Your task to perform on an android device: open app "ZOOM Cloud Meetings" (install if not already installed), go to login, and select forgot password Image 0: 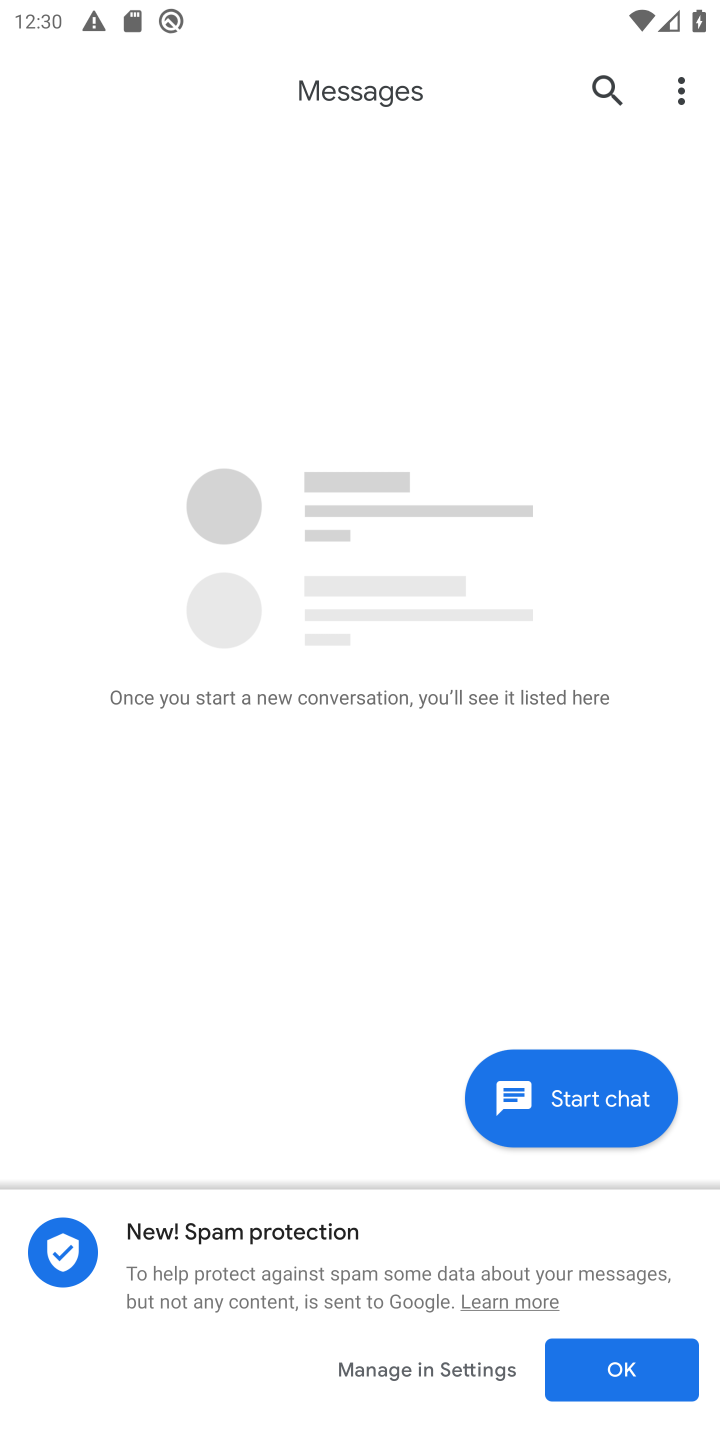
Step 0: press back button
Your task to perform on an android device: open app "ZOOM Cloud Meetings" (install if not already installed), go to login, and select forgot password Image 1: 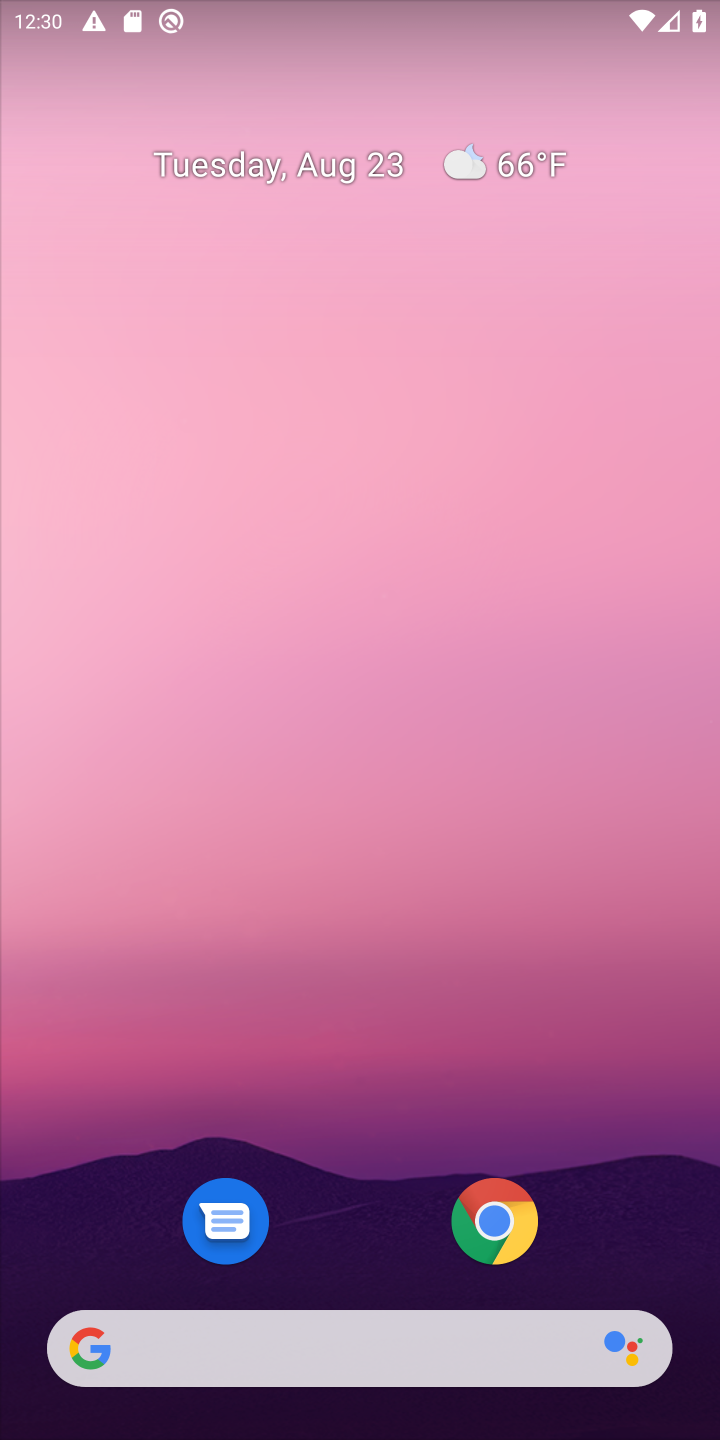
Step 1: drag from (358, 1168) to (476, 86)
Your task to perform on an android device: open app "ZOOM Cloud Meetings" (install if not already installed), go to login, and select forgot password Image 2: 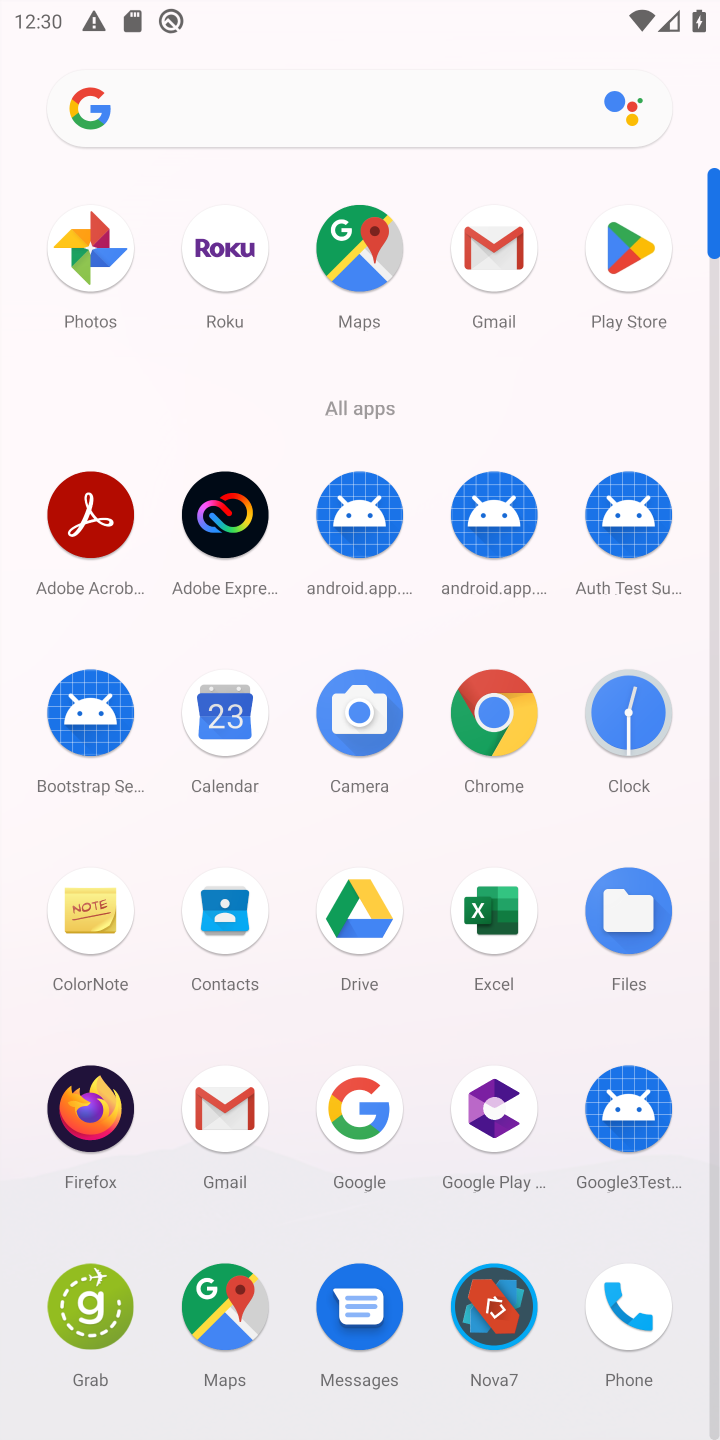
Step 2: click (633, 231)
Your task to perform on an android device: open app "ZOOM Cloud Meetings" (install if not already installed), go to login, and select forgot password Image 3: 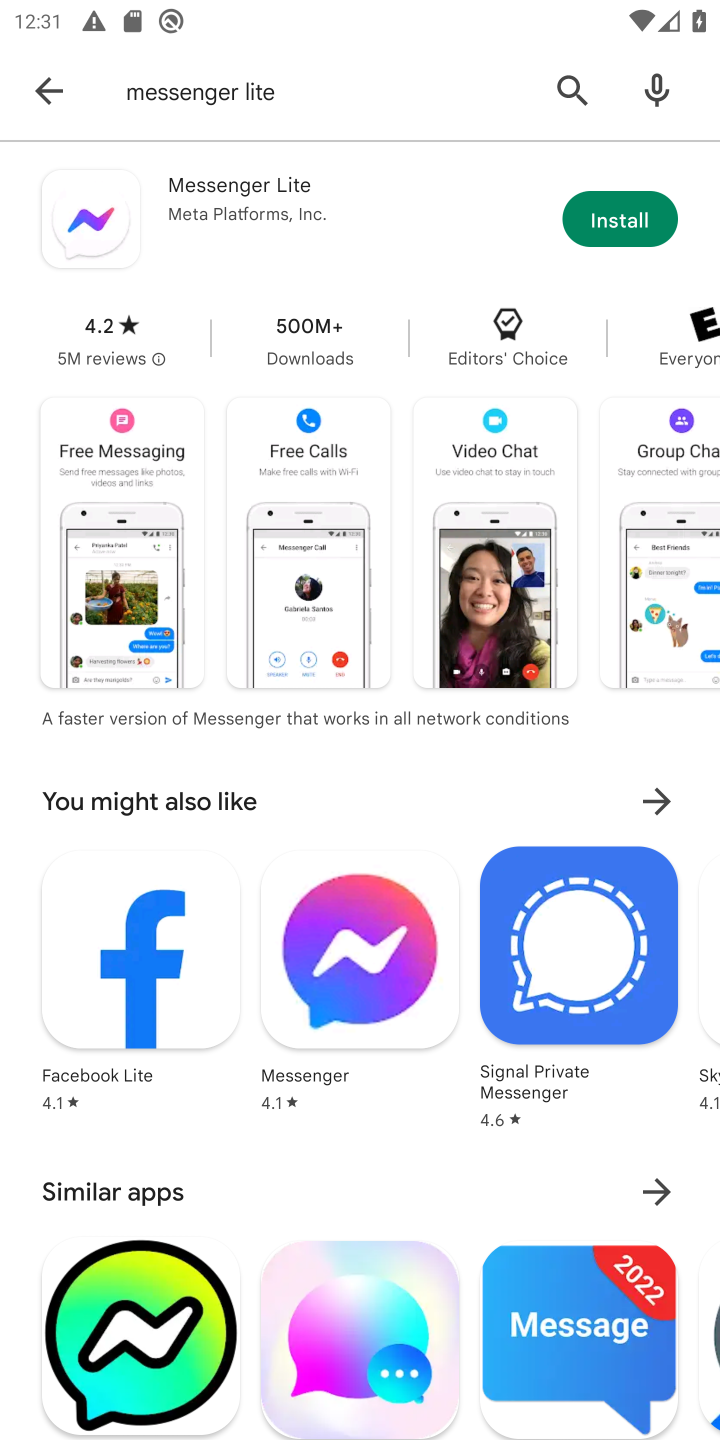
Step 3: click (565, 99)
Your task to perform on an android device: open app "ZOOM Cloud Meetings" (install if not already installed), go to login, and select forgot password Image 4: 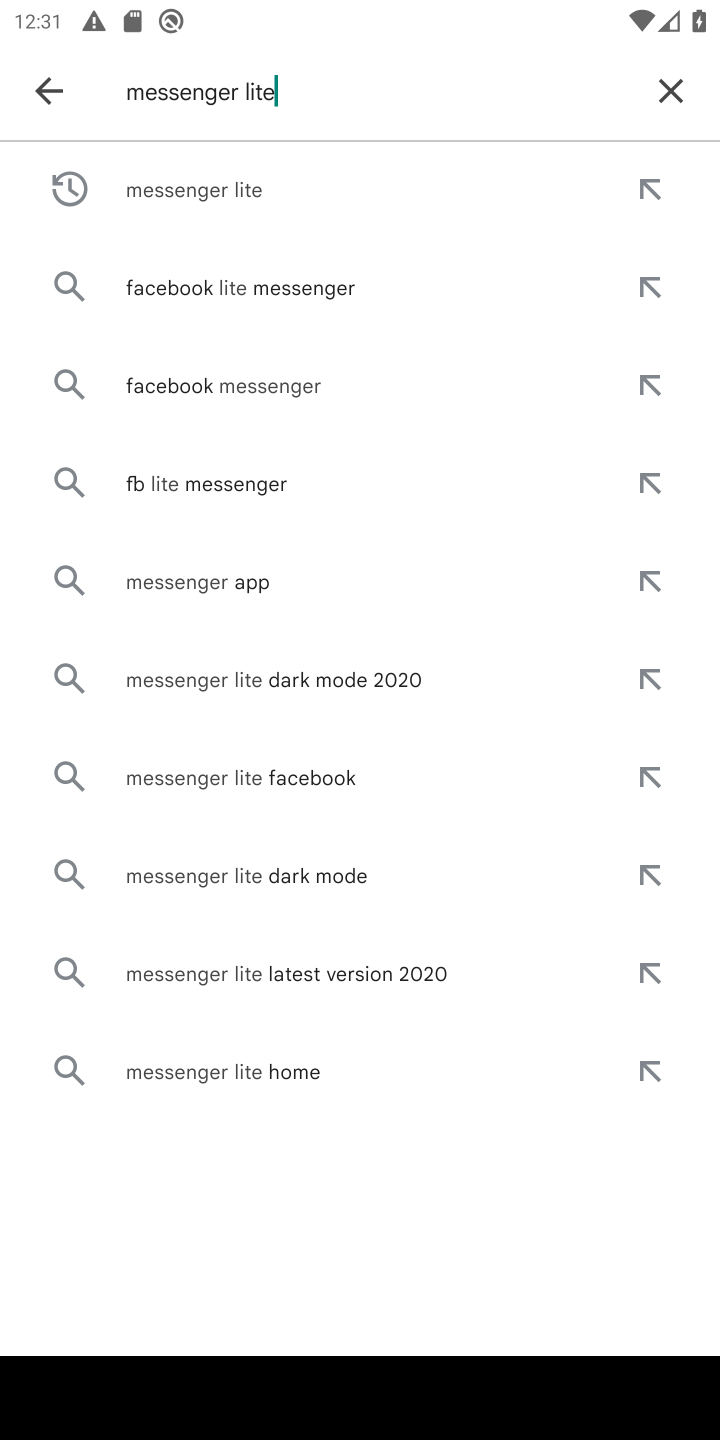
Step 4: click (692, 79)
Your task to perform on an android device: open app "ZOOM Cloud Meetings" (install if not already installed), go to login, and select forgot password Image 5: 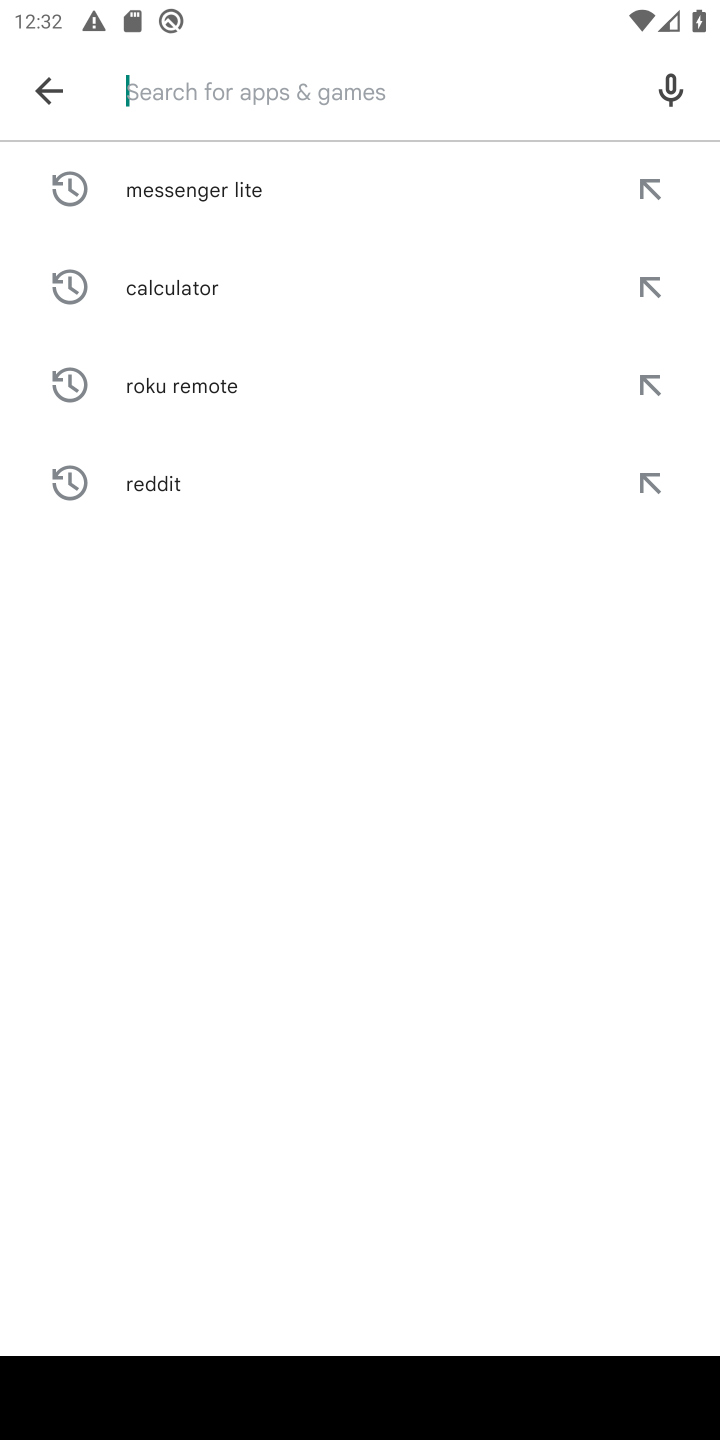
Step 5: click (234, 96)
Your task to perform on an android device: open app "ZOOM Cloud Meetings" (install if not already installed), go to login, and select forgot password Image 6: 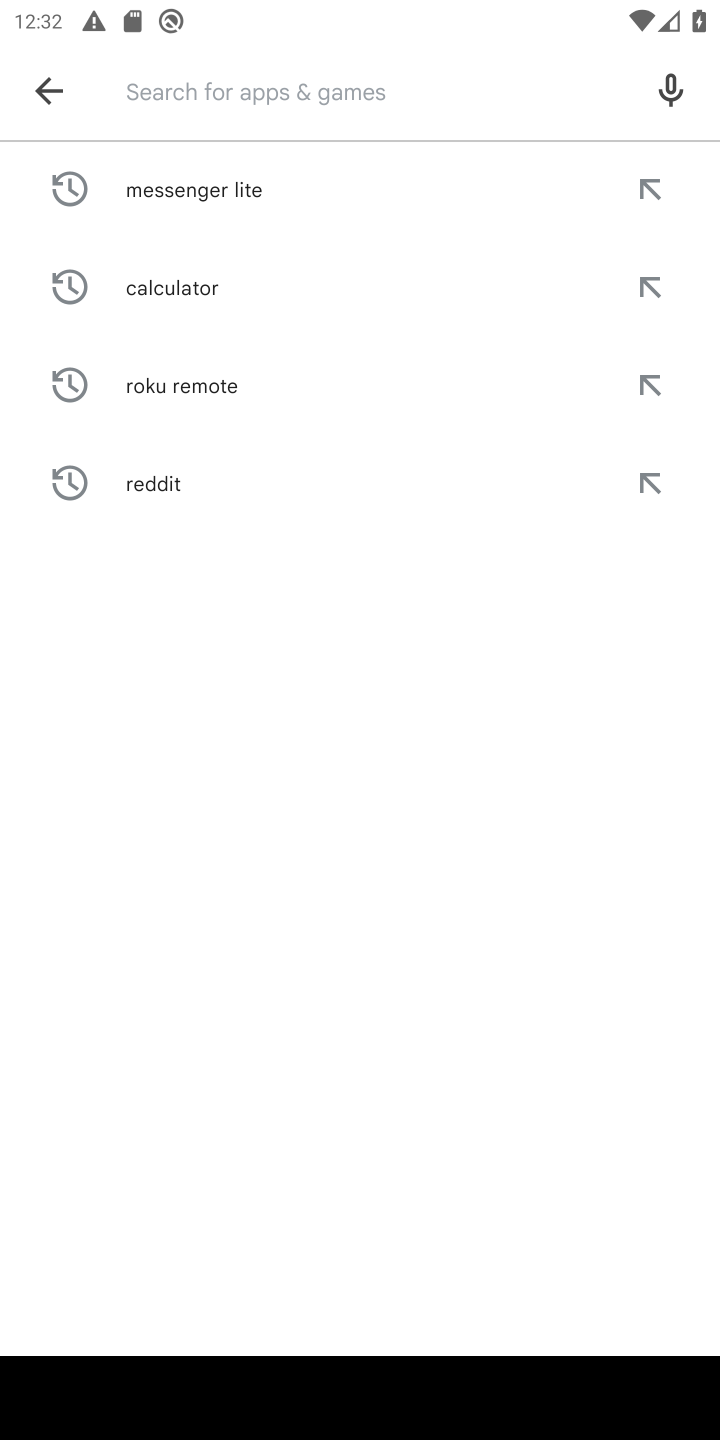
Step 6: click (560, 886)
Your task to perform on an android device: open app "ZOOM Cloud Meetings" (install if not already installed), go to login, and select forgot password Image 7: 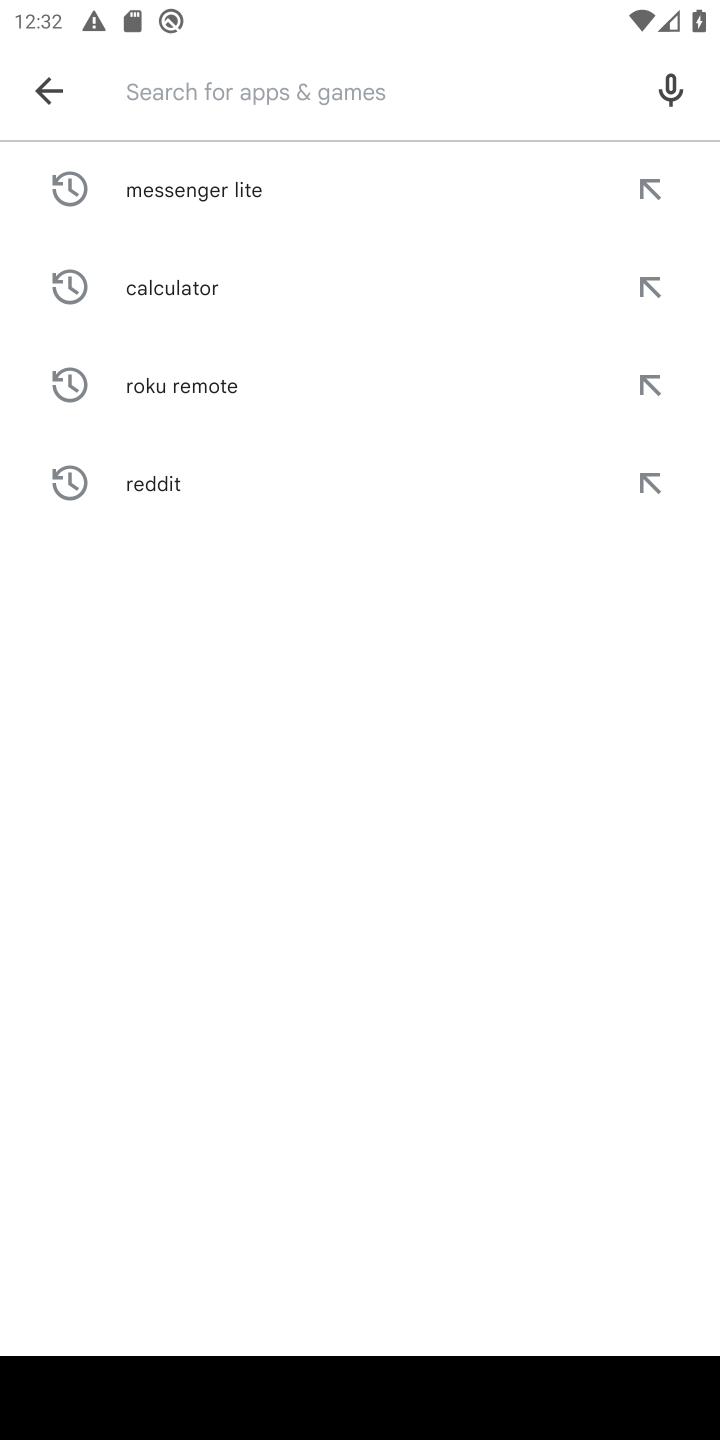
Step 7: type "ZOOM Cloud Meetings"
Your task to perform on an android device: open app "ZOOM Cloud Meetings" (install if not already installed), go to login, and select forgot password Image 8: 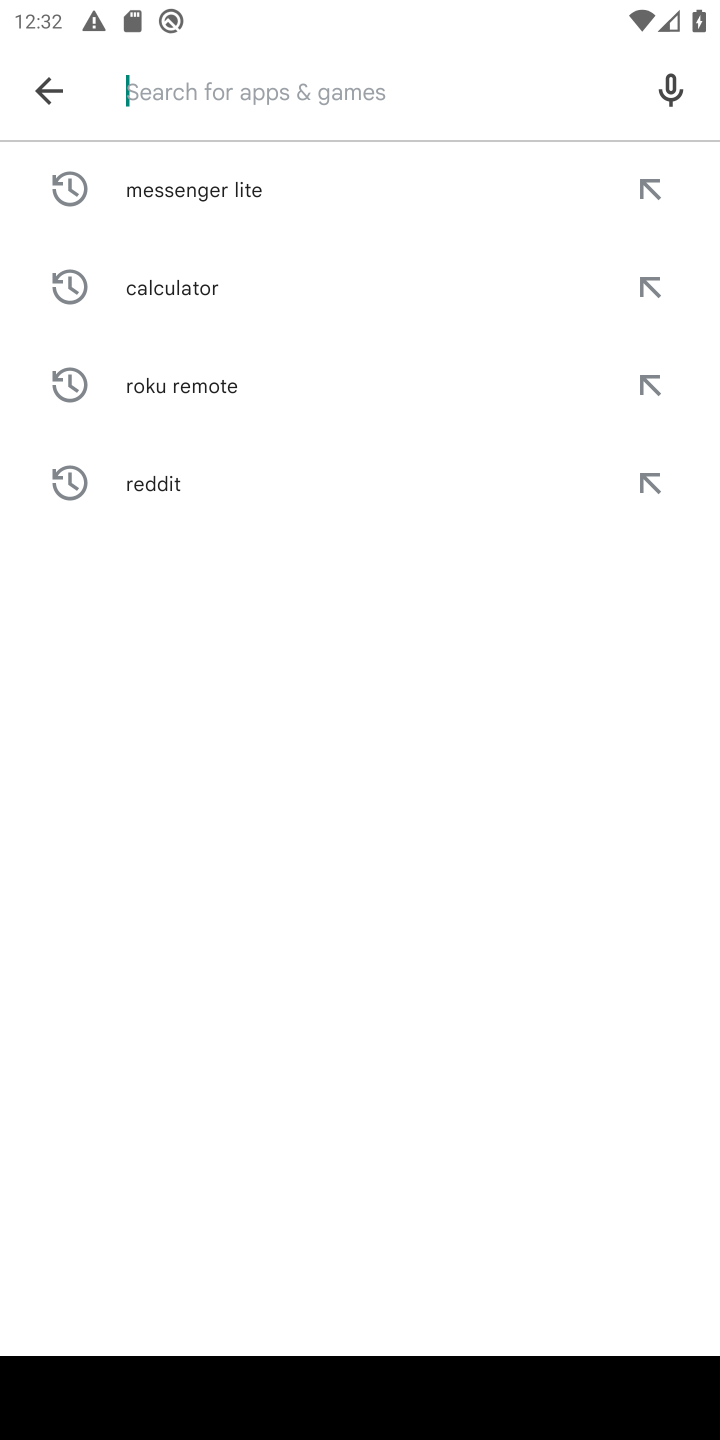
Step 8: click (559, 886)
Your task to perform on an android device: open app "ZOOM Cloud Meetings" (install if not already installed), go to login, and select forgot password Image 9: 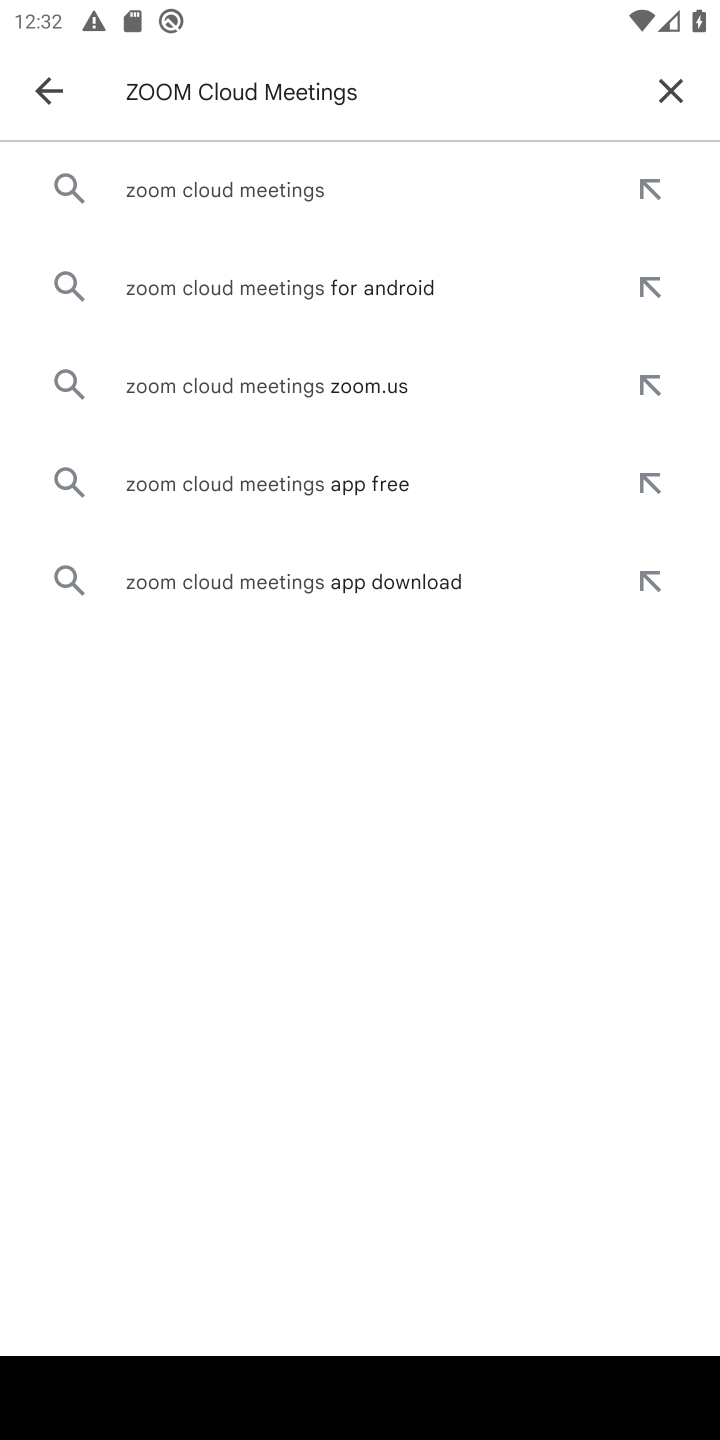
Step 9: click (274, 187)
Your task to perform on an android device: open app "ZOOM Cloud Meetings" (install if not already installed), go to login, and select forgot password Image 10: 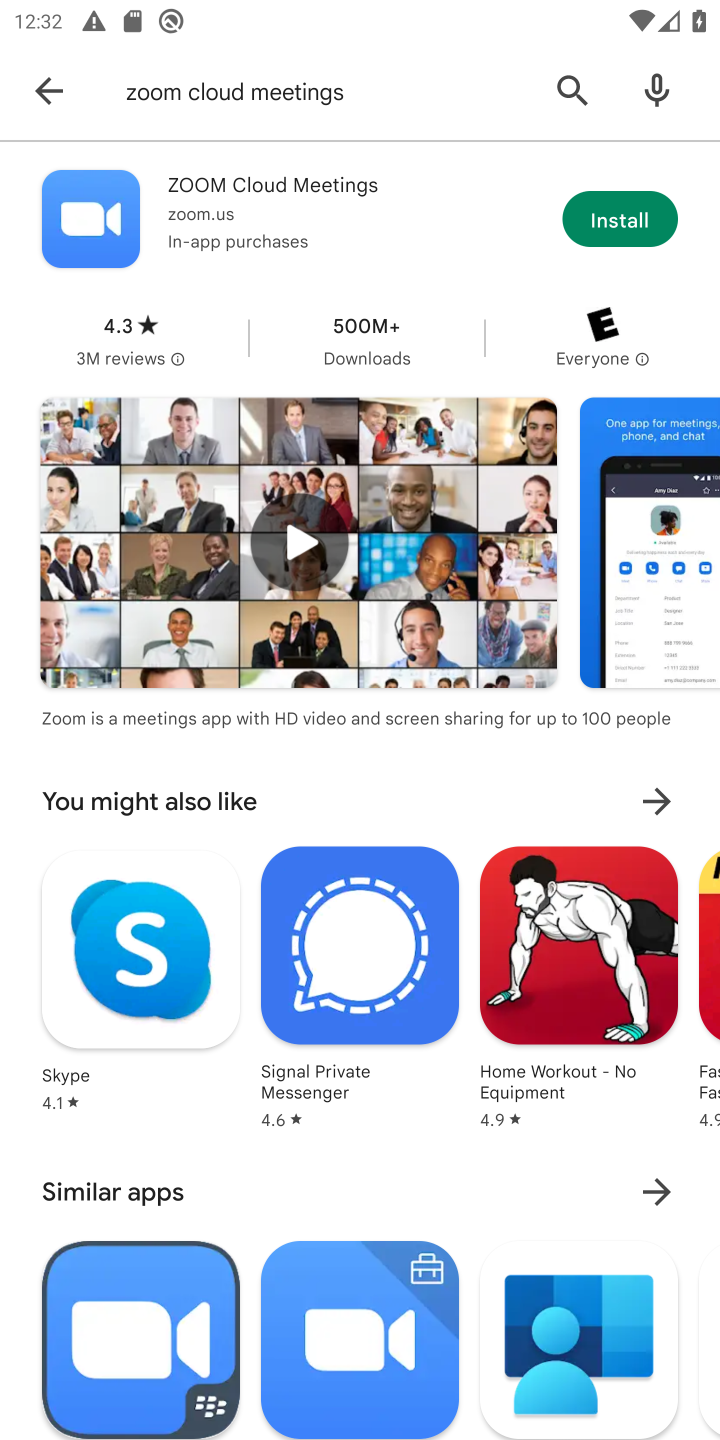
Step 10: click (639, 213)
Your task to perform on an android device: open app "ZOOM Cloud Meetings" (install if not already installed), go to login, and select forgot password Image 11: 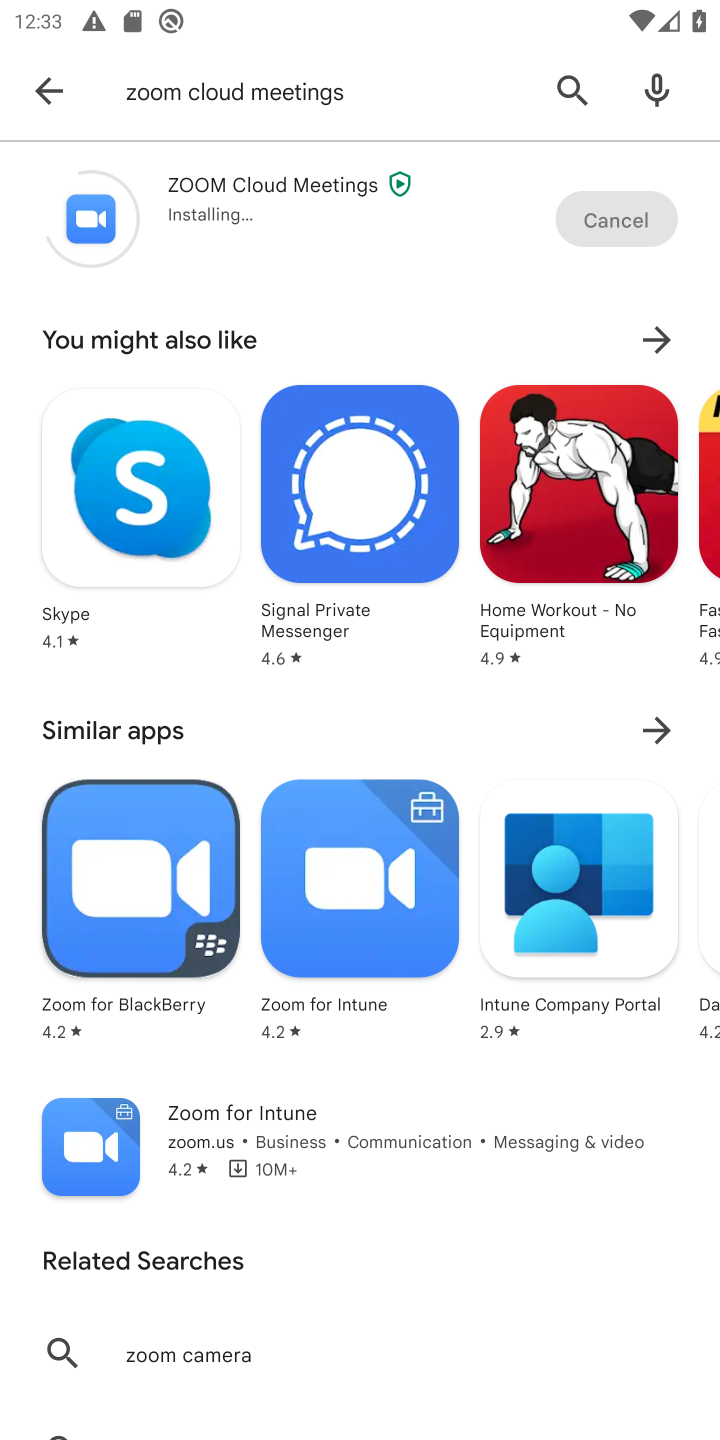
Step 11: press back button
Your task to perform on an android device: open app "ZOOM Cloud Meetings" (install if not already installed), go to login, and select forgot password Image 12: 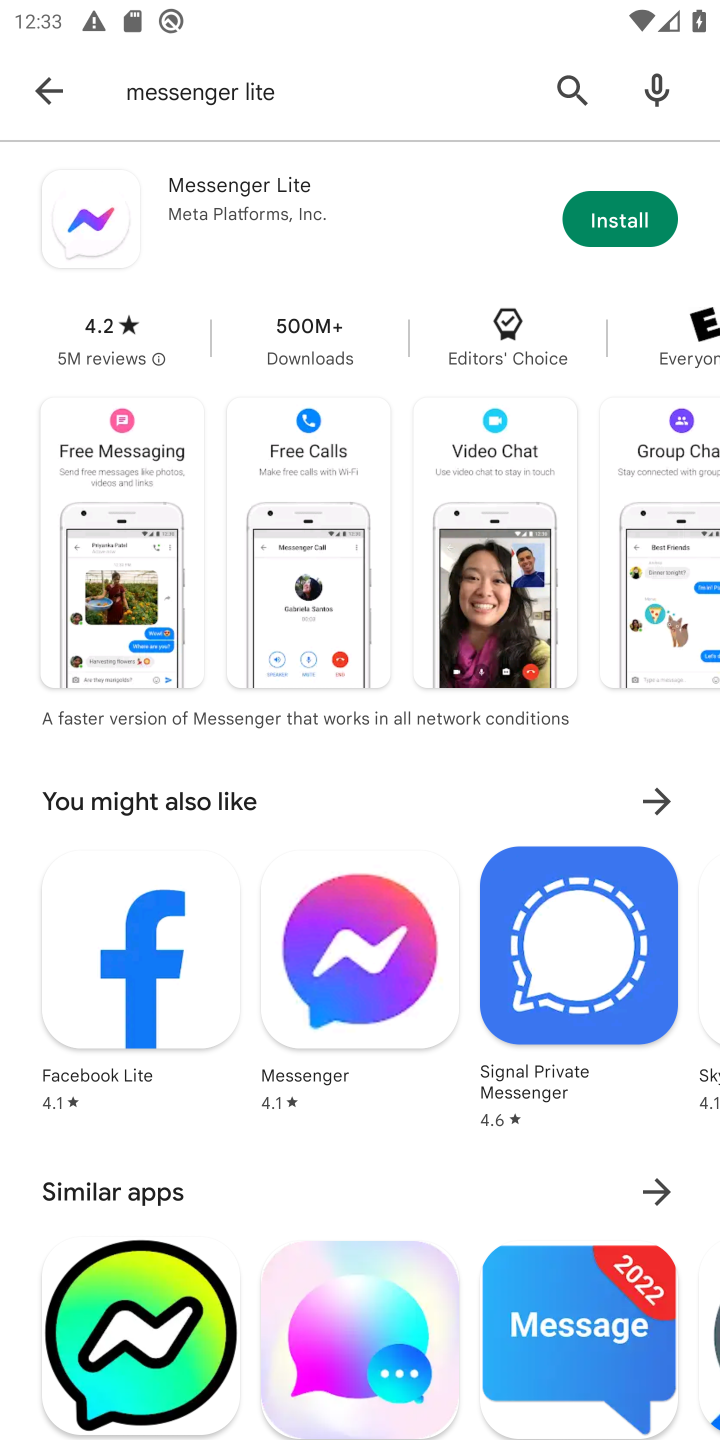
Step 12: click (555, 90)
Your task to perform on an android device: open app "ZOOM Cloud Meetings" (install if not already installed), go to login, and select forgot password Image 13: 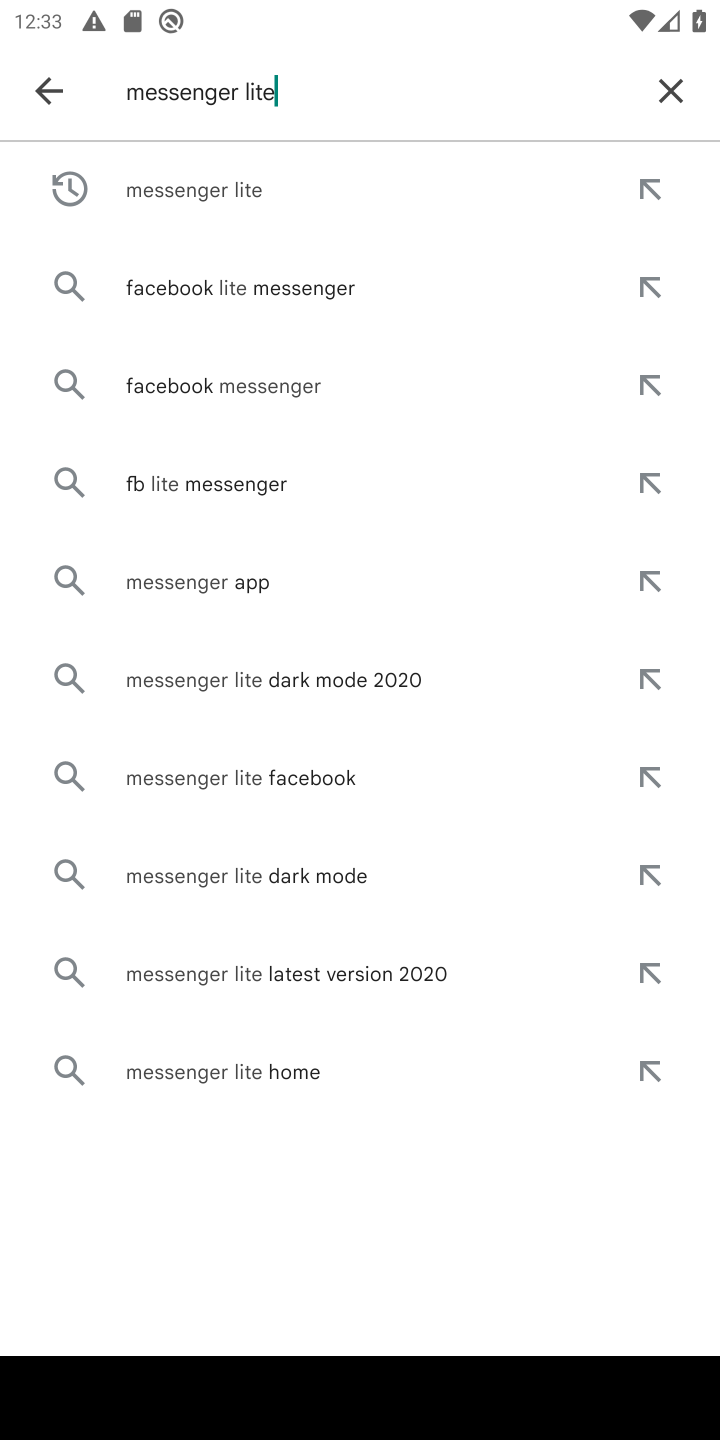
Step 13: click (677, 90)
Your task to perform on an android device: open app "ZOOM Cloud Meetings" (install if not already installed), go to login, and select forgot password Image 14: 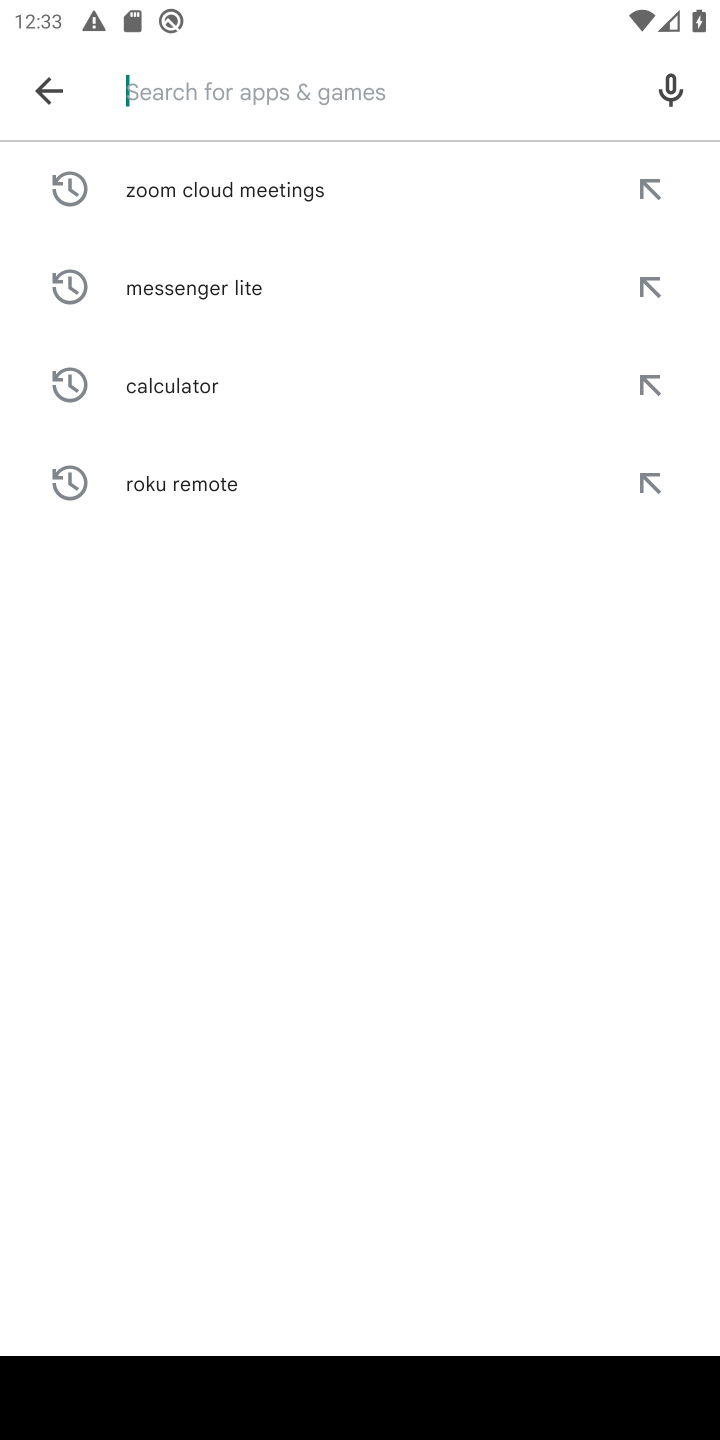
Step 14: click (297, 190)
Your task to perform on an android device: open app "ZOOM Cloud Meetings" (install if not already installed), go to login, and select forgot password Image 15: 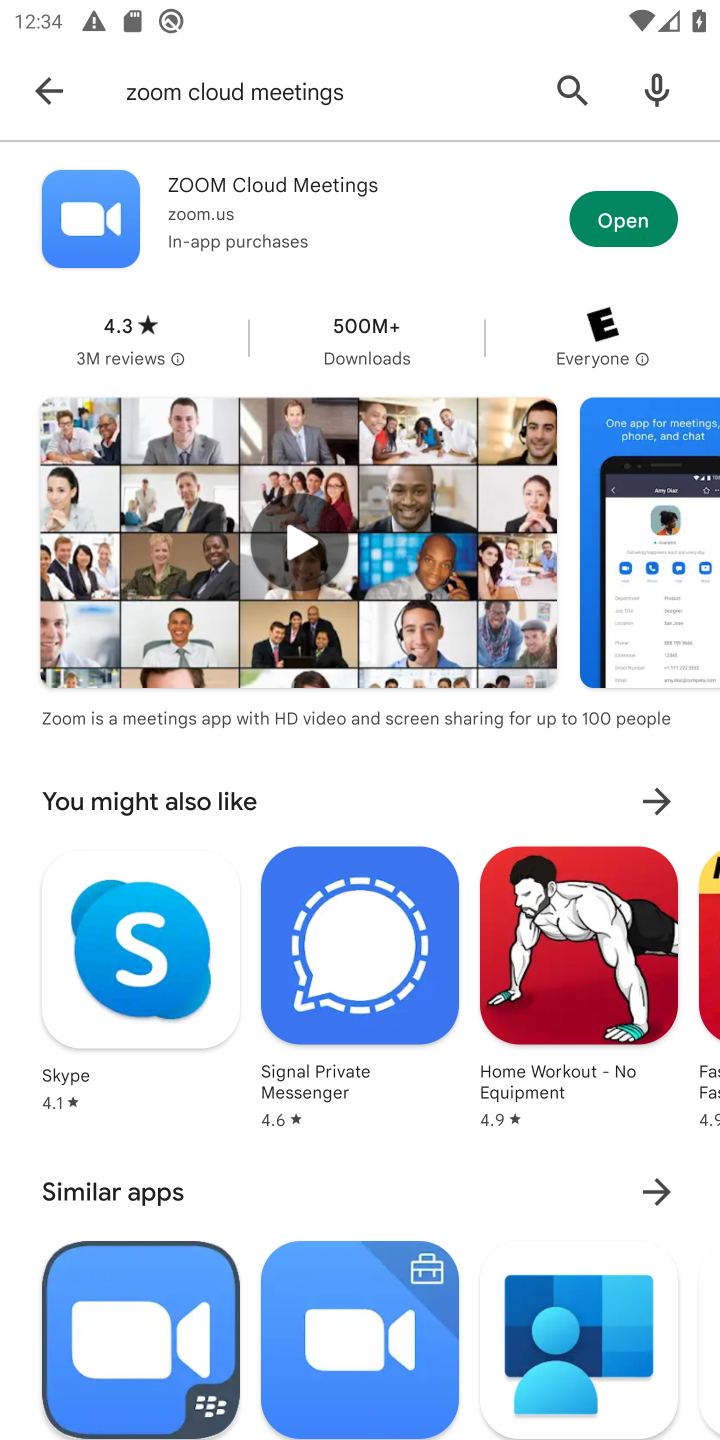
Step 15: click (648, 207)
Your task to perform on an android device: open app "ZOOM Cloud Meetings" (install if not already installed), go to login, and select forgot password Image 16: 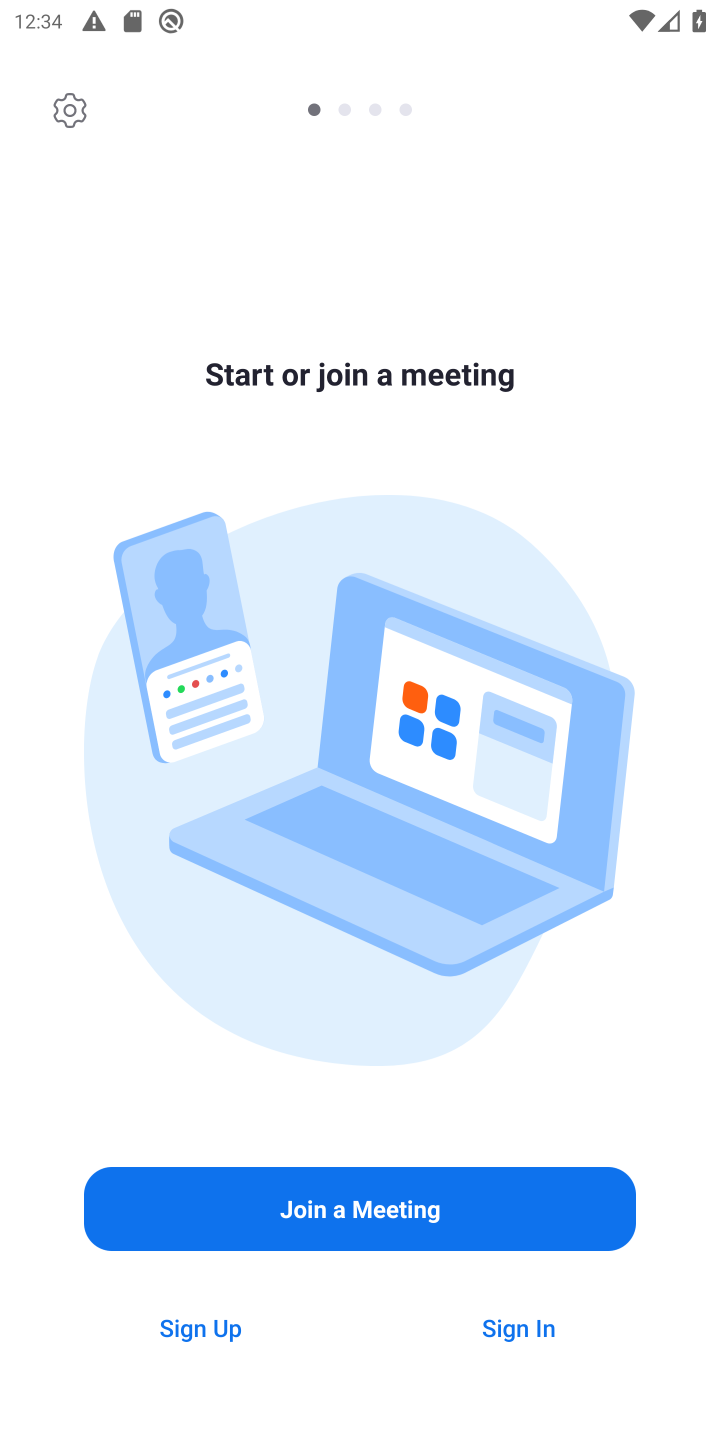
Step 16: click (193, 1331)
Your task to perform on an android device: open app "ZOOM Cloud Meetings" (install if not already installed), go to login, and select forgot password Image 17: 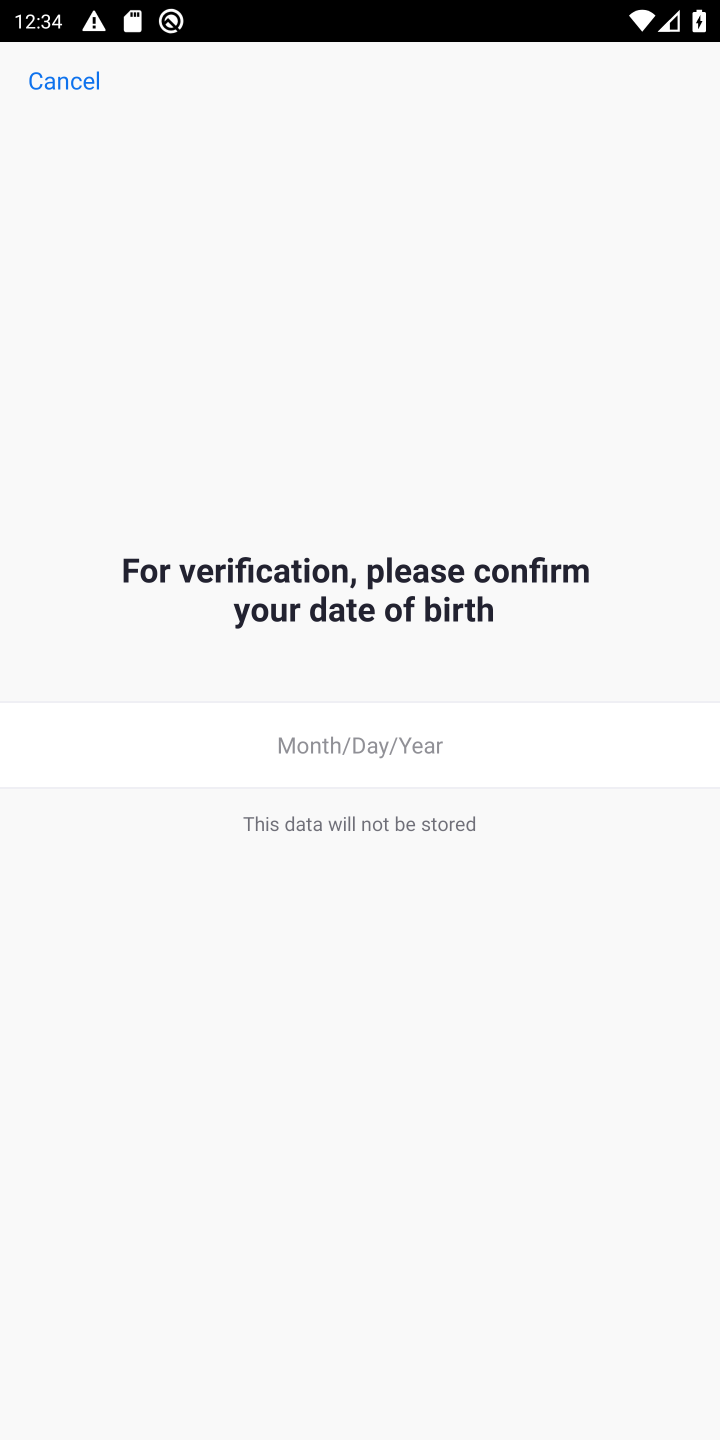
Step 17: task complete